Your task to perform on an android device: set an alarm Image 0: 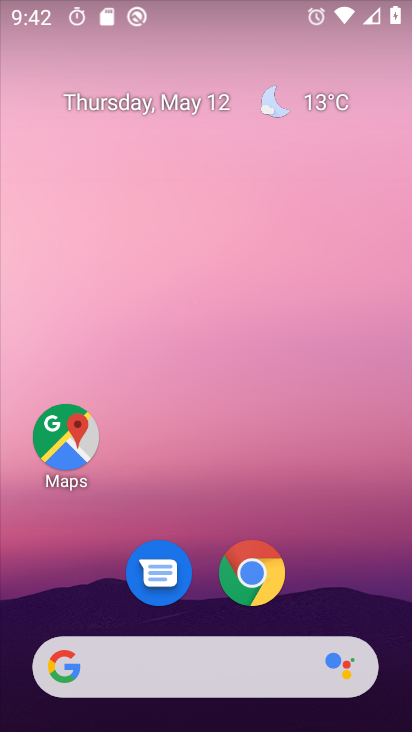
Step 0: drag from (398, 671) to (354, 276)
Your task to perform on an android device: set an alarm Image 1: 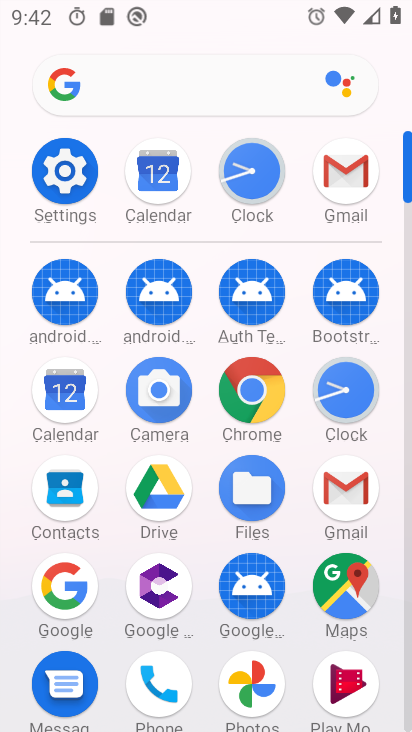
Step 1: click (335, 396)
Your task to perform on an android device: set an alarm Image 2: 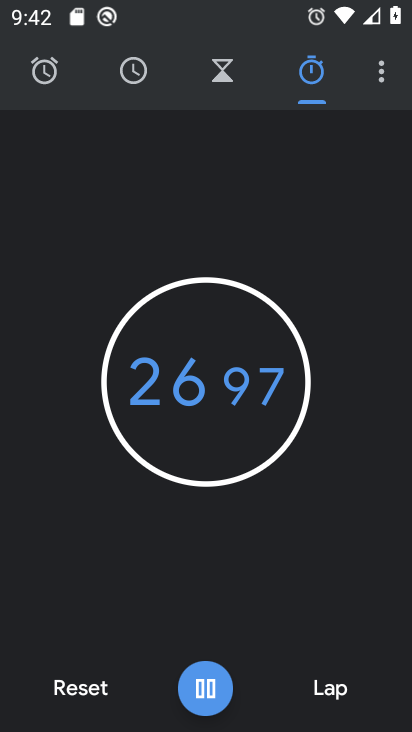
Step 2: click (54, 73)
Your task to perform on an android device: set an alarm Image 3: 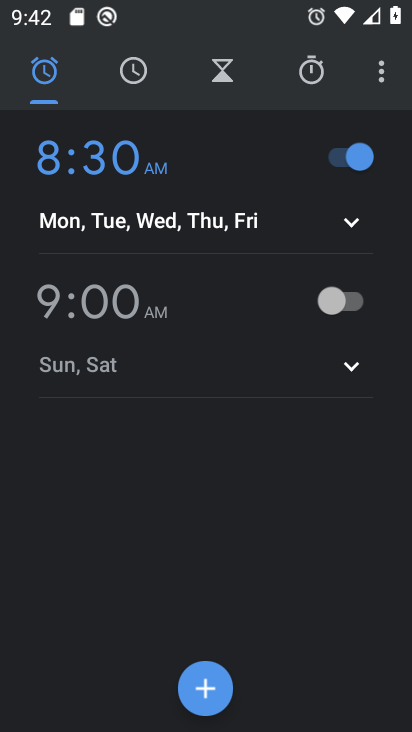
Step 3: click (358, 301)
Your task to perform on an android device: set an alarm Image 4: 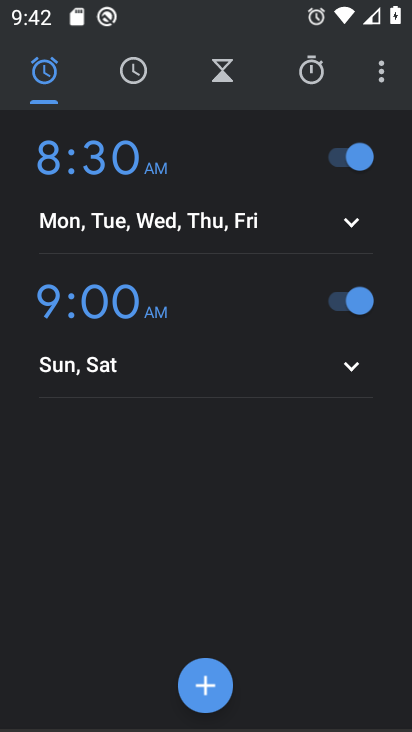
Step 4: task complete